Your task to perform on an android device: What's the weather going to be tomorrow? Image 0: 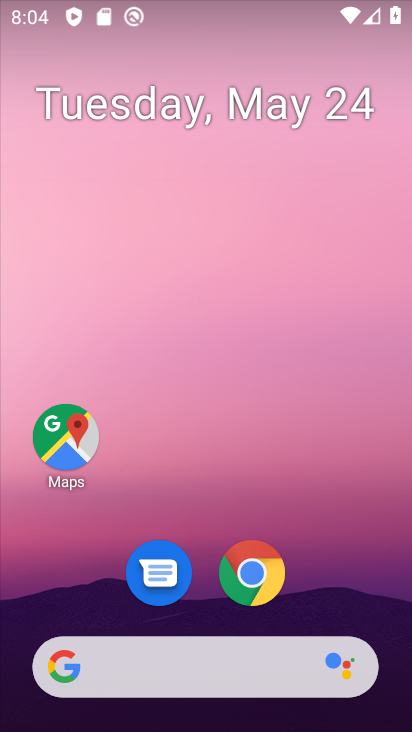
Step 0: click (190, 658)
Your task to perform on an android device: What's the weather going to be tomorrow? Image 1: 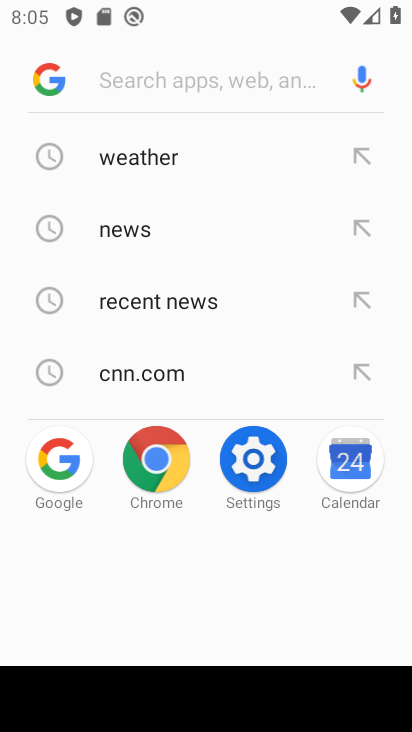
Step 1: type "what's the weather going to be  tomorrow"
Your task to perform on an android device: What's the weather going to be tomorrow? Image 2: 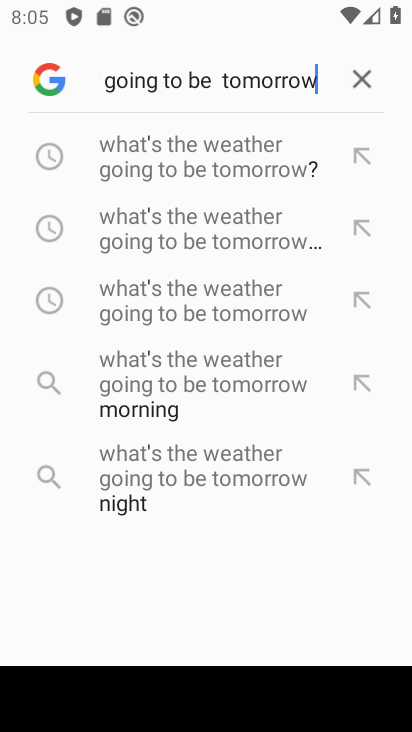
Step 2: click (255, 163)
Your task to perform on an android device: What's the weather going to be tomorrow? Image 3: 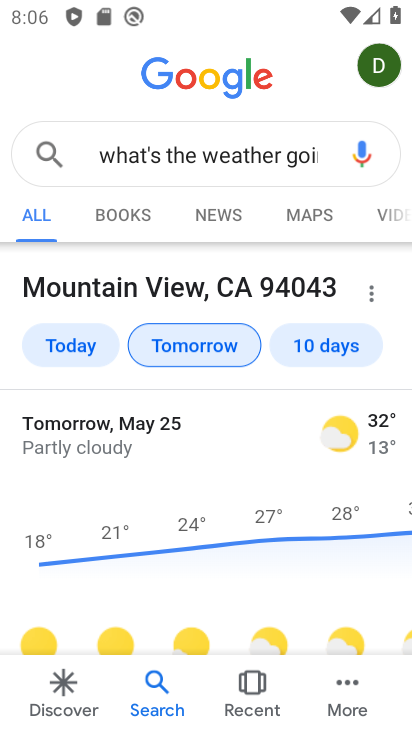
Step 3: task complete